Your task to perform on an android device: Go to settings Image 0: 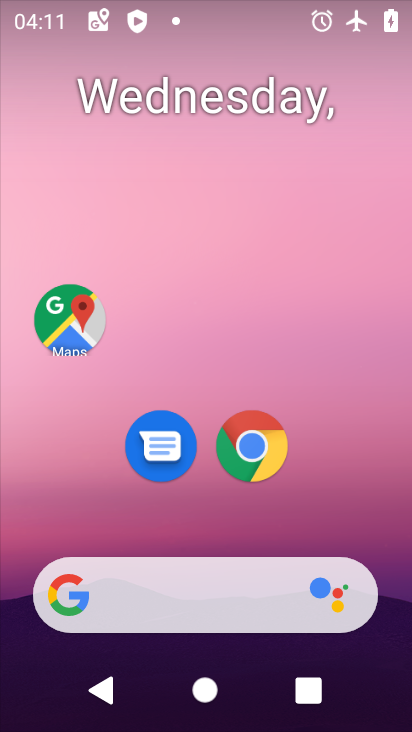
Step 0: drag from (225, 538) to (225, 79)
Your task to perform on an android device: Go to settings Image 1: 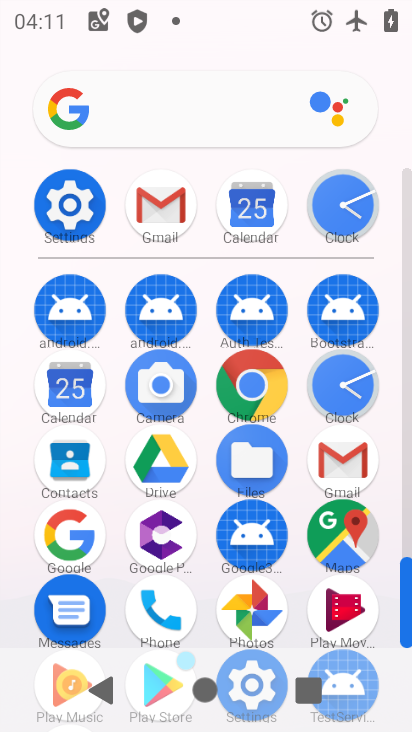
Step 1: click (84, 207)
Your task to perform on an android device: Go to settings Image 2: 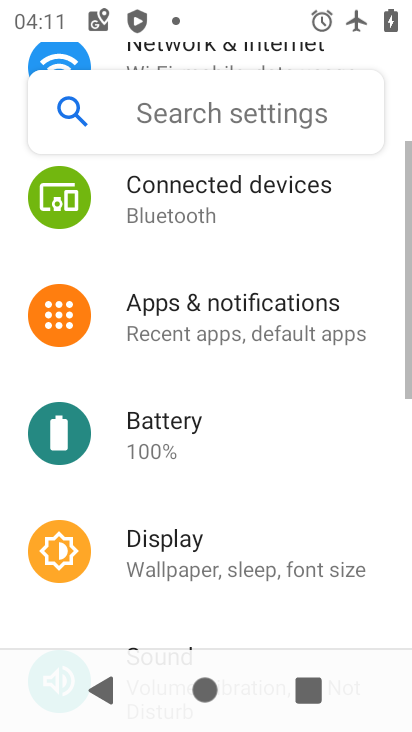
Step 2: drag from (229, 287) to (257, 532)
Your task to perform on an android device: Go to settings Image 3: 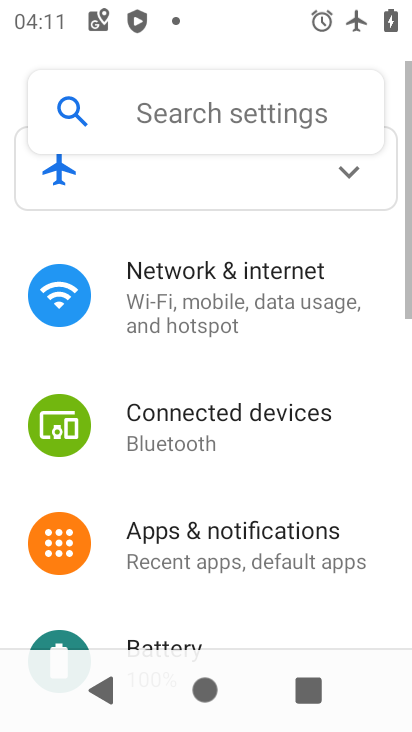
Step 3: click (242, 522)
Your task to perform on an android device: Go to settings Image 4: 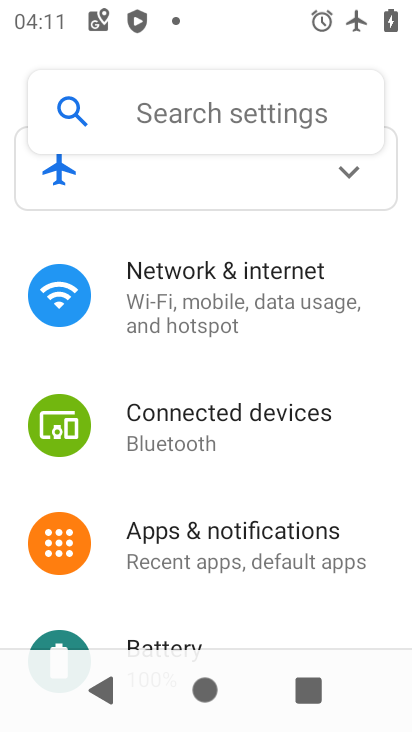
Step 4: drag from (238, 300) to (238, 532)
Your task to perform on an android device: Go to settings Image 5: 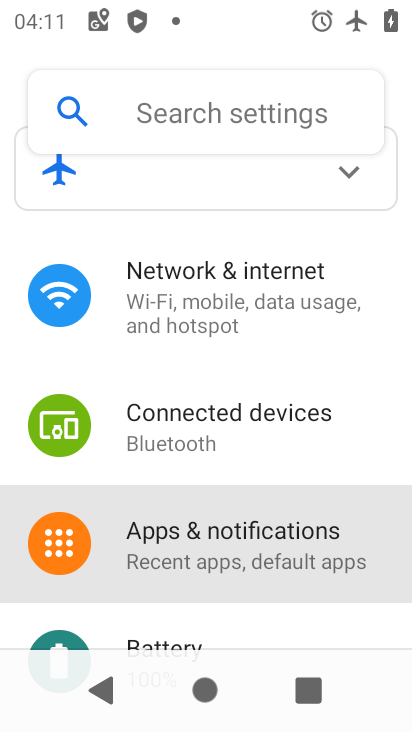
Step 5: drag from (228, 529) to (220, 269)
Your task to perform on an android device: Go to settings Image 6: 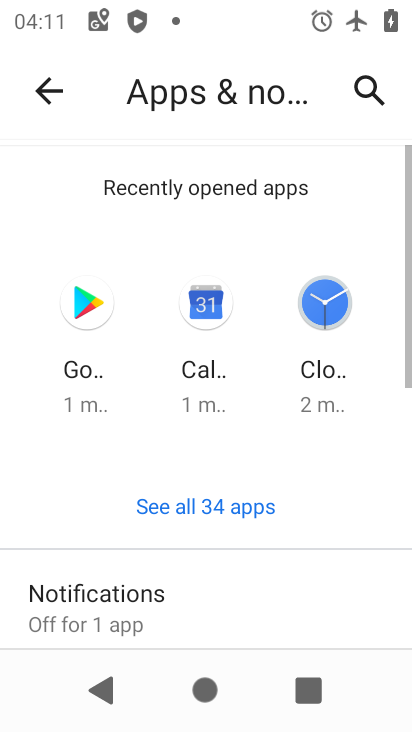
Step 6: click (41, 100)
Your task to perform on an android device: Go to settings Image 7: 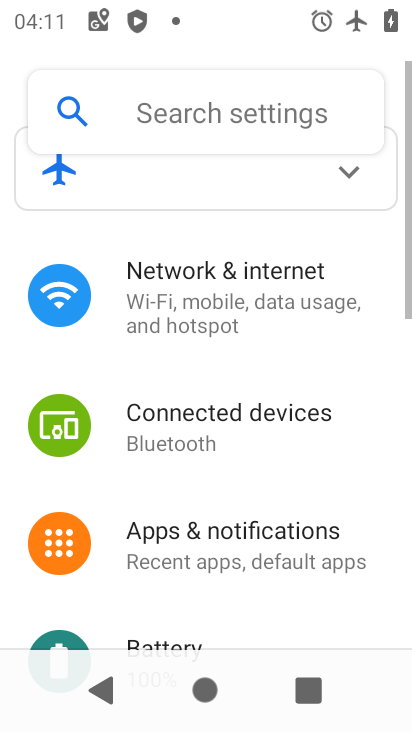
Step 7: task complete